Your task to perform on an android device: set the stopwatch Image 0: 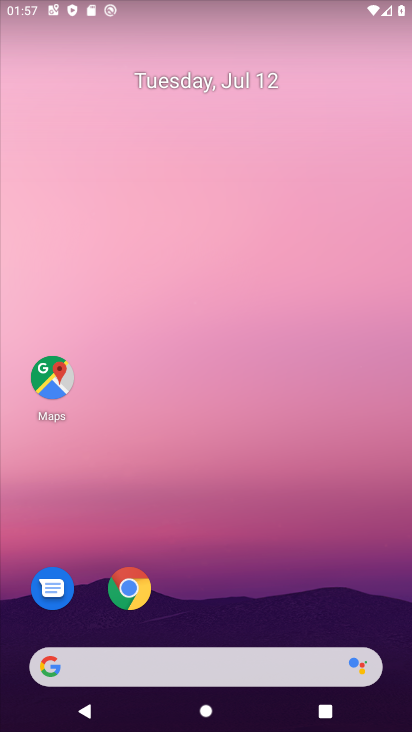
Step 0: drag from (178, 617) to (225, 66)
Your task to perform on an android device: set the stopwatch Image 1: 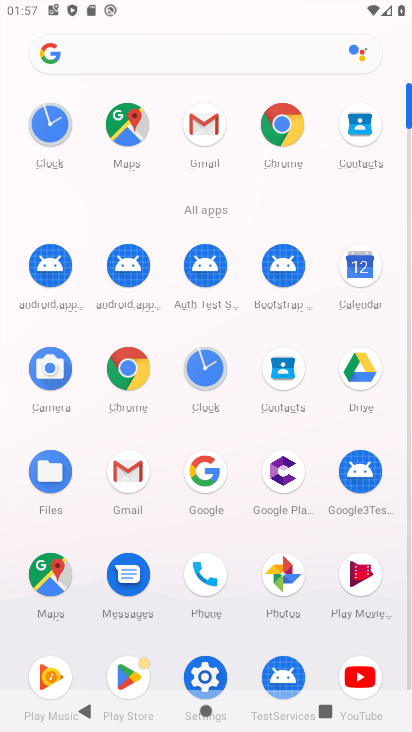
Step 1: click (47, 129)
Your task to perform on an android device: set the stopwatch Image 2: 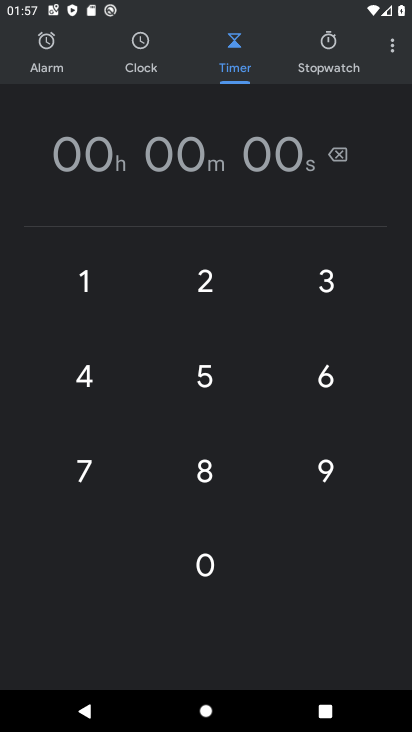
Step 2: click (316, 42)
Your task to perform on an android device: set the stopwatch Image 3: 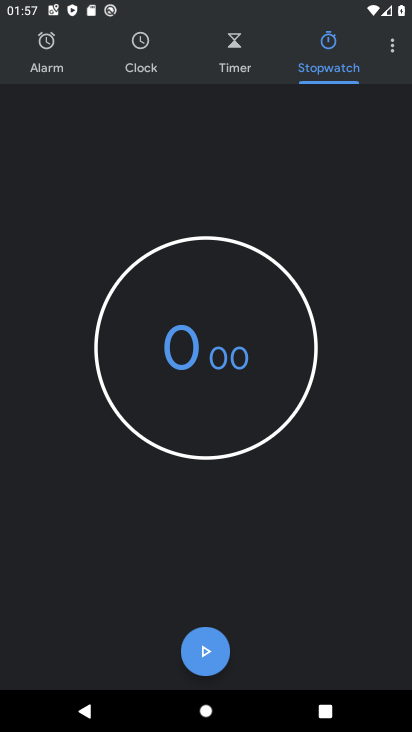
Step 3: task complete